Your task to perform on an android device: Go to Yahoo.com Image 0: 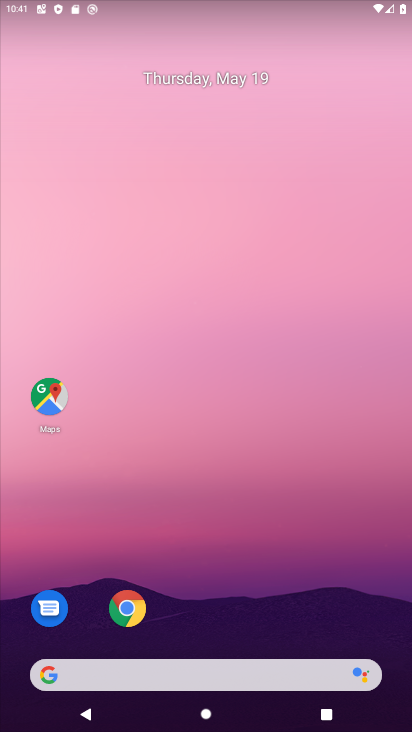
Step 0: click (130, 607)
Your task to perform on an android device: Go to Yahoo.com Image 1: 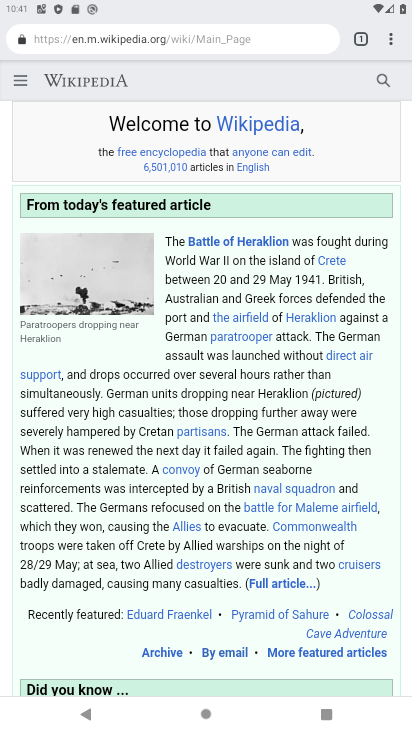
Step 1: click (319, 37)
Your task to perform on an android device: Go to Yahoo.com Image 2: 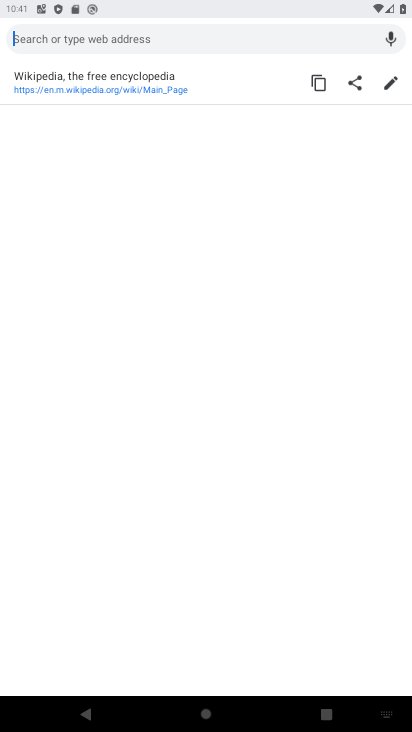
Step 2: type " Yahoo.com"
Your task to perform on an android device: Go to Yahoo.com Image 3: 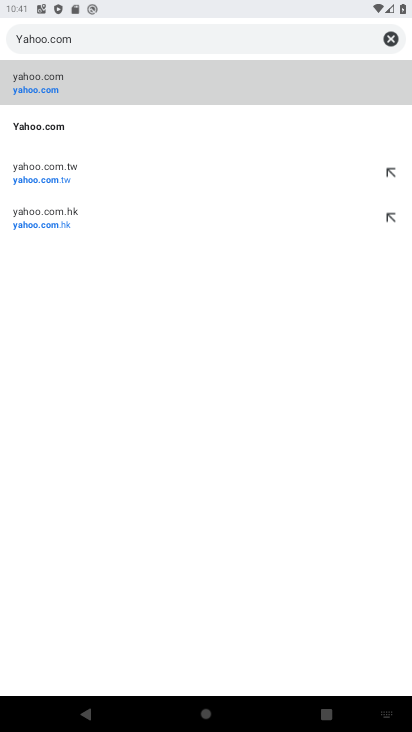
Step 3: click (48, 120)
Your task to perform on an android device: Go to Yahoo.com Image 4: 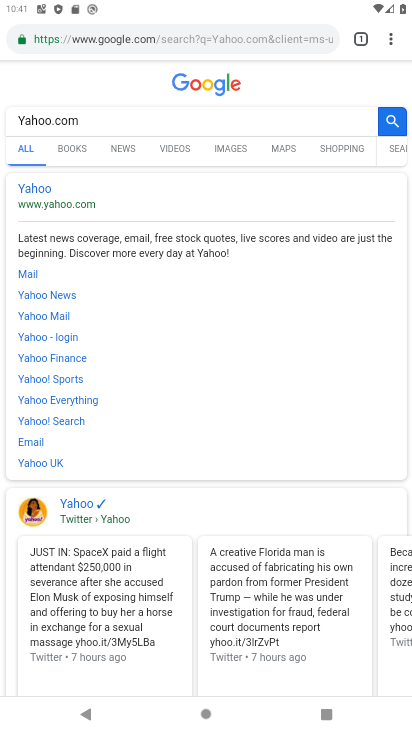
Step 4: task complete